Your task to perform on an android device: set default search engine in the chrome app Image 0: 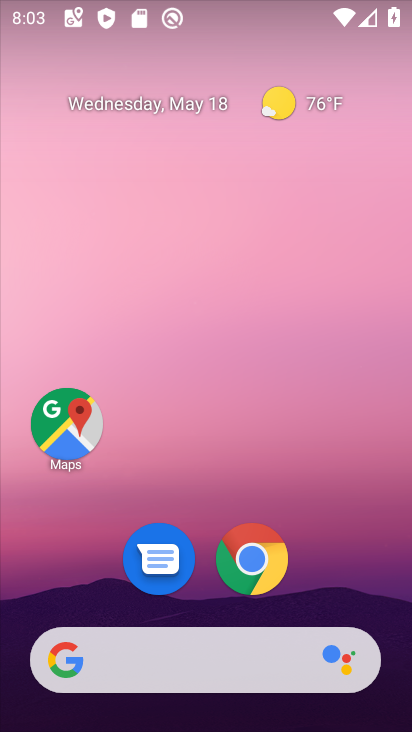
Step 0: click (240, 573)
Your task to perform on an android device: set default search engine in the chrome app Image 1: 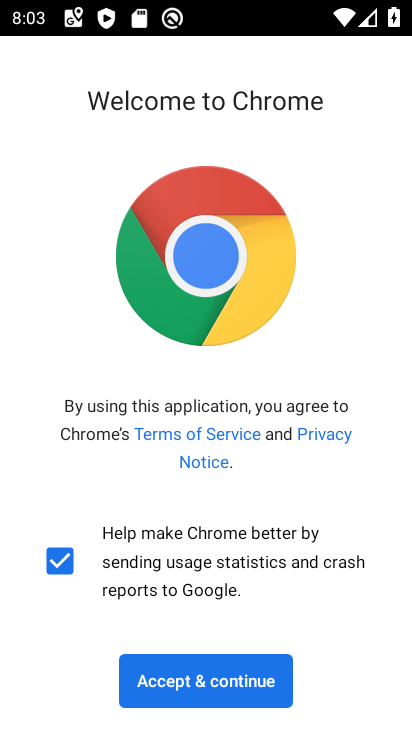
Step 1: click (179, 685)
Your task to perform on an android device: set default search engine in the chrome app Image 2: 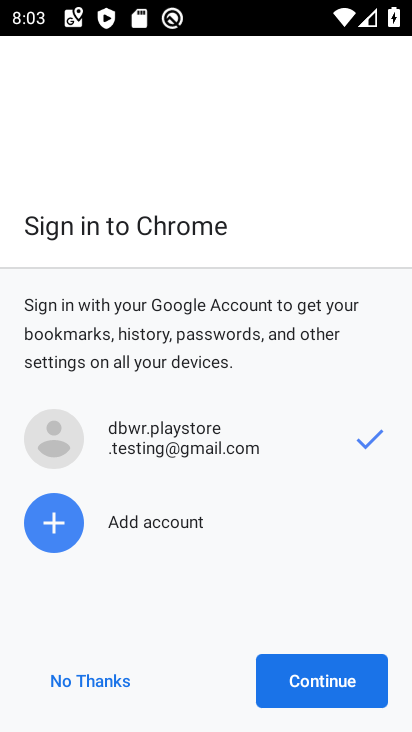
Step 2: click (311, 686)
Your task to perform on an android device: set default search engine in the chrome app Image 3: 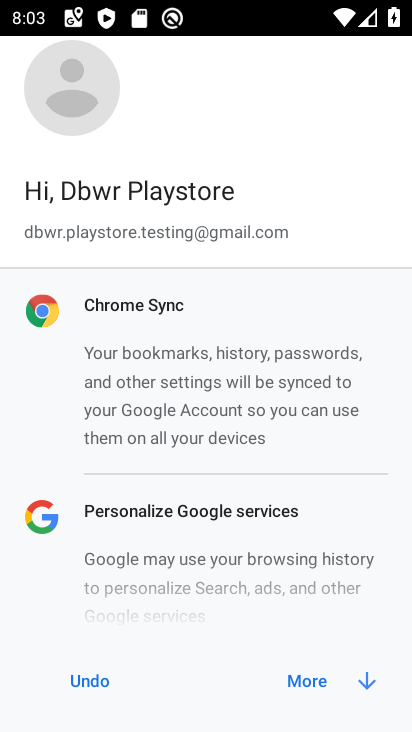
Step 3: click (314, 659)
Your task to perform on an android device: set default search engine in the chrome app Image 4: 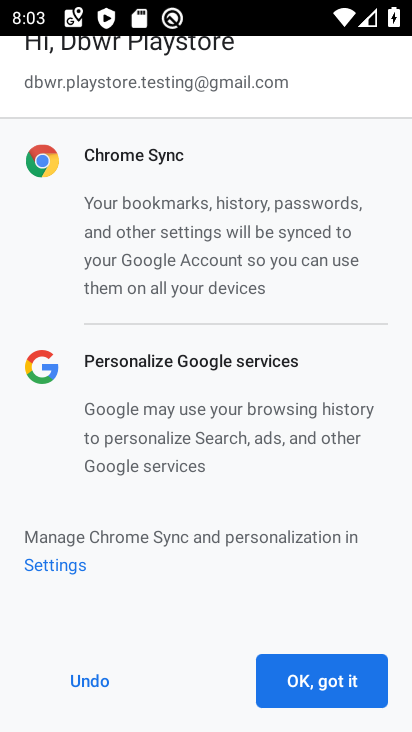
Step 4: click (327, 687)
Your task to perform on an android device: set default search engine in the chrome app Image 5: 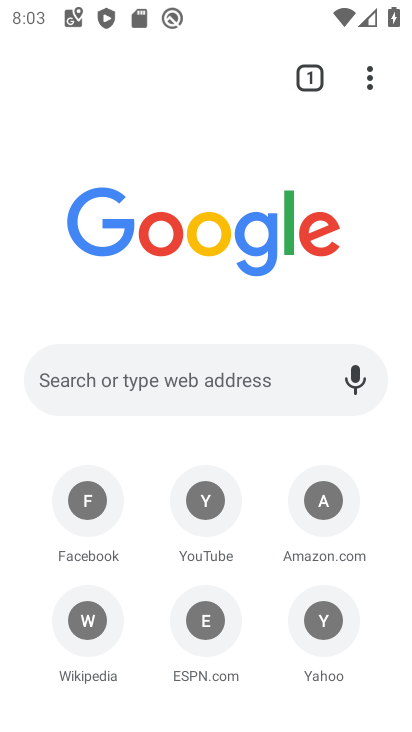
Step 5: click (364, 89)
Your task to perform on an android device: set default search engine in the chrome app Image 6: 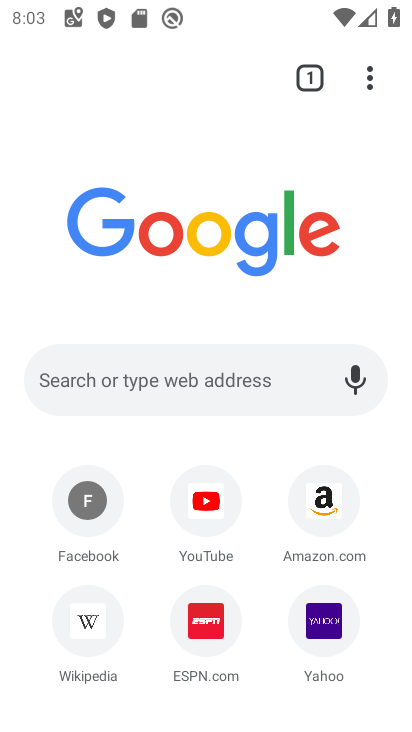
Step 6: drag from (363, 85) to (95, 632)
Your task to perform on an android device: set default search engine in the chrome app Image 7: 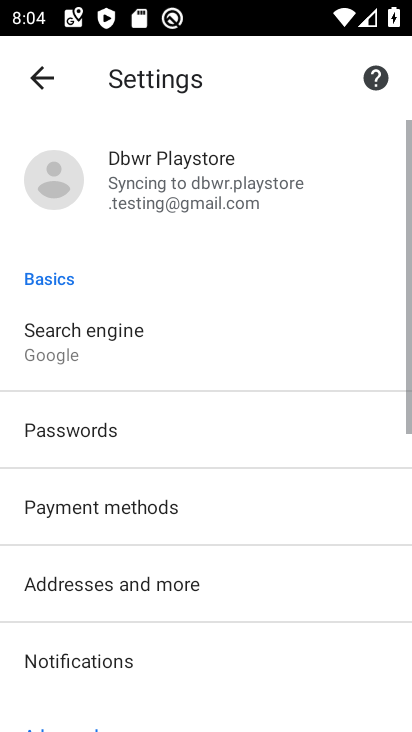
Step 7: click (72, 346)
Your task to perform on an android device: set default search engine in the chrome app Image 8: 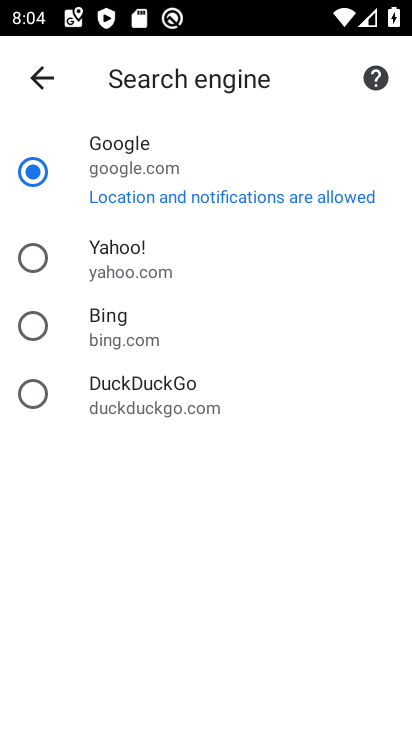
Step 8: click (28, 162)
Your task to perform on an android device: set default search engine in the chrome app Image 9: 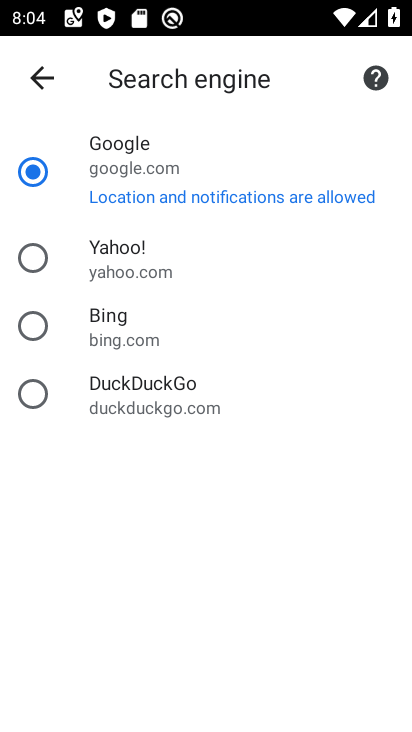
Step 9: task complete